Your task to perform on an android device: open device folders in google photos Image 0: 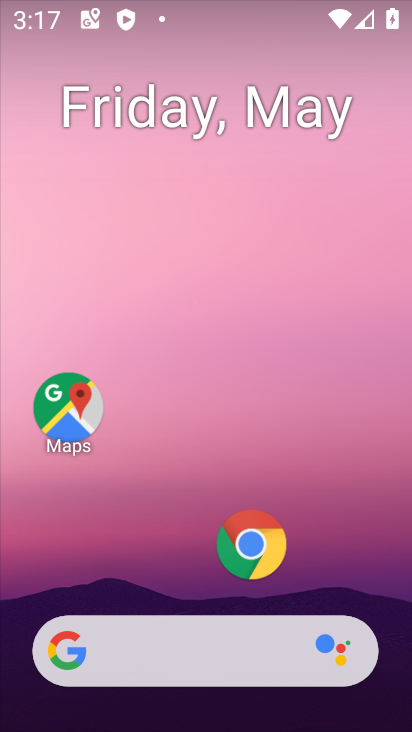
Step 0: drag from (176, 580) to (190, 287)
Your task to perform on an android device: open device folders in google photos Image 1: 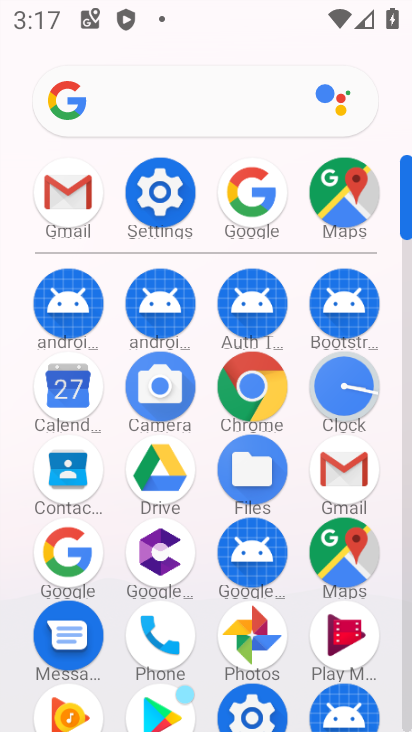
Step 1: click (256, 621)
Your task to perform on an android device: open device folders in google photos Image 2: 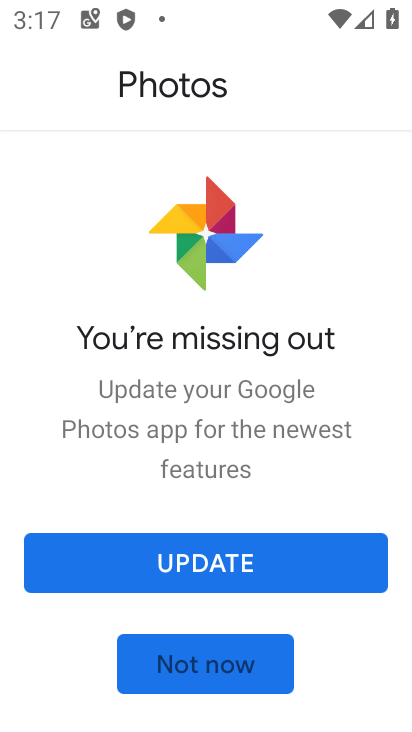
Step 2: click (217, 645)
Your task to perform on an android device: open device folders in google photos Image 3: 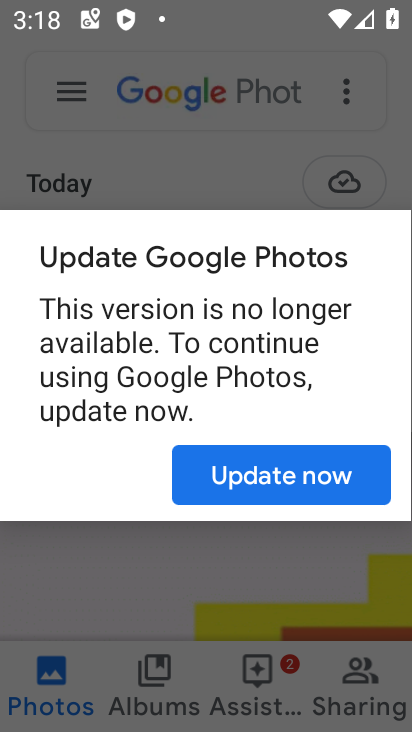
Step 3: click (254, 477)
Your task to perform on an android device: open device folders in google photos Image 4: 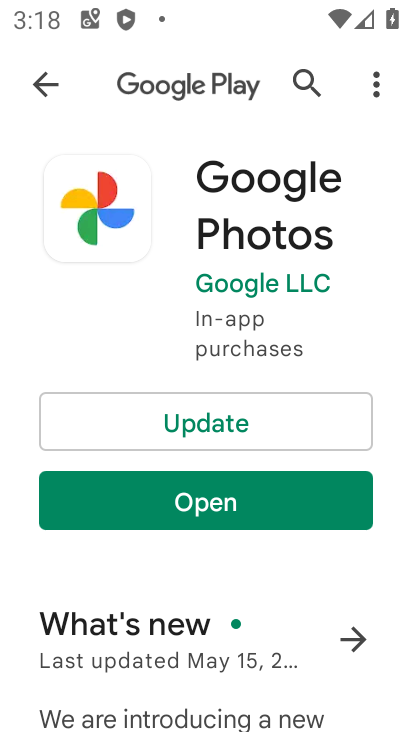
Step 4: click (317, 490)
Your task to perform on an android device: open device folders in google photos Image 5: 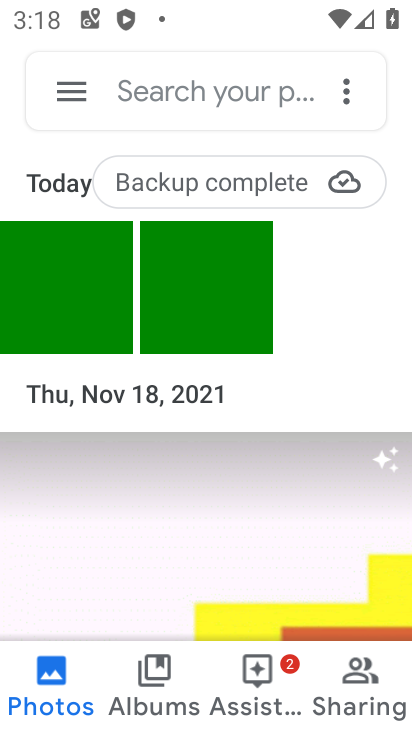
Step 5: click (72, 95)
Your task to perform on an android device: open device folders in google photos Image 6: 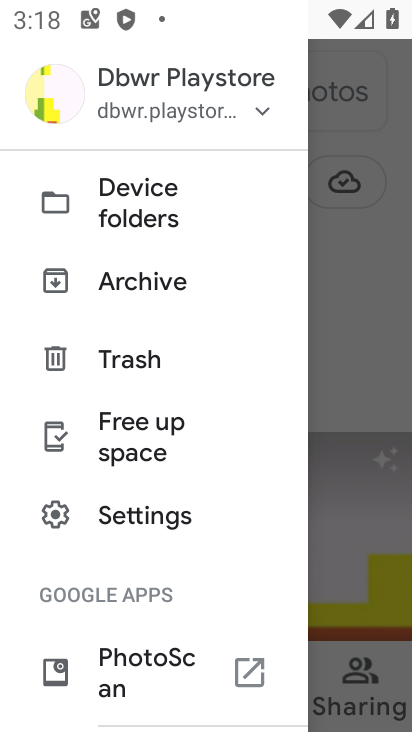
Step 6: click (121, 197)
Your task to perform on an android device: open device folders in google photos Image 7: 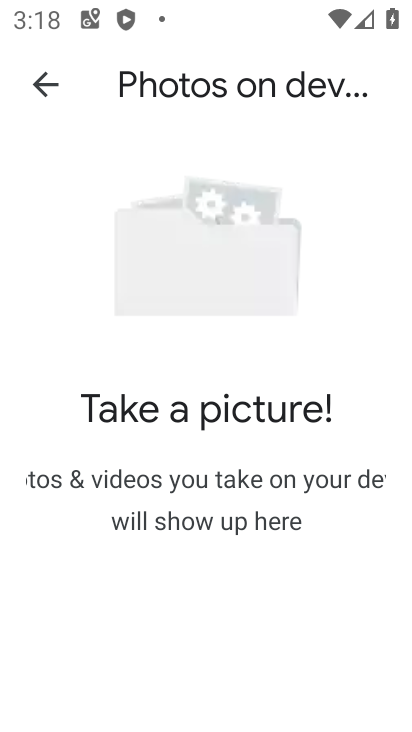
Step 7: task complete